Your task to perform on an android device: change the clock display to show seconds Image 0: 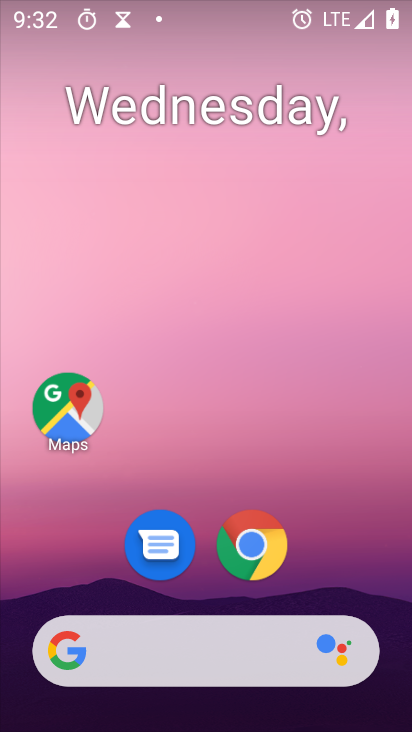
Step 0: press home button
Your task to perform on an android device: change the clock display to show seconds Image 1: 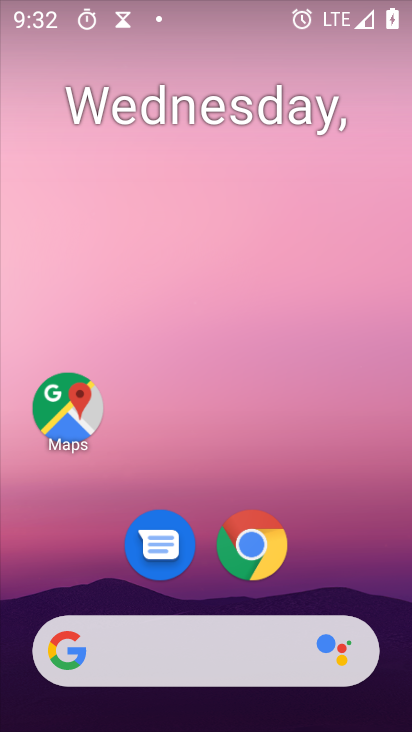
Step 1: drag from (188, 658) to (306, 216)
Your task to perform on an android device: change the clock display to show seconds Image 2: 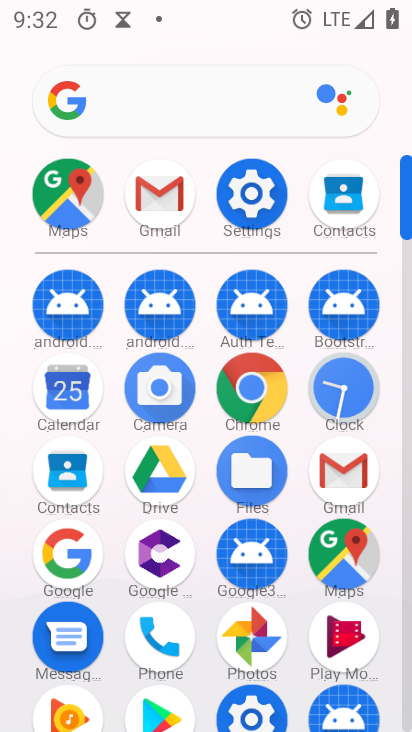
Step 2: click (339, 392)
Your task to perform on an android device: change the clock display to show seconds Image 3: 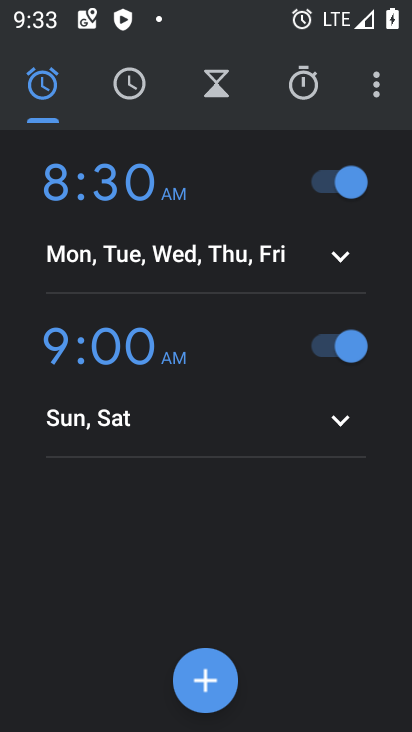
Step 3: click (373, 91)
Your task to perform on an android device: change the clock display to show seconds Image 4: 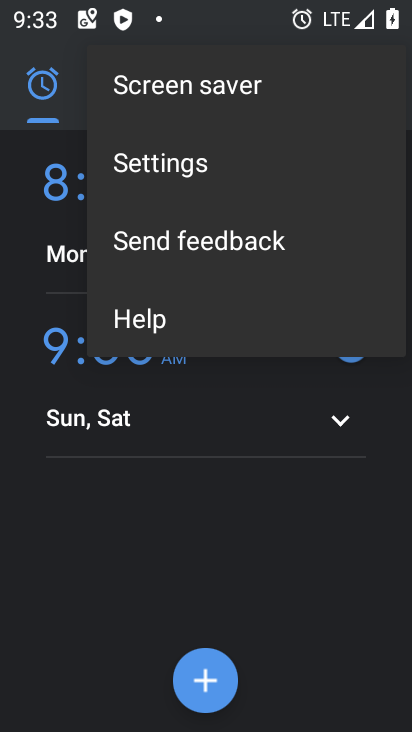
Step 4: click (219, 164)
Your task to perform on an android device: change the clock display to show seconds Image 5: 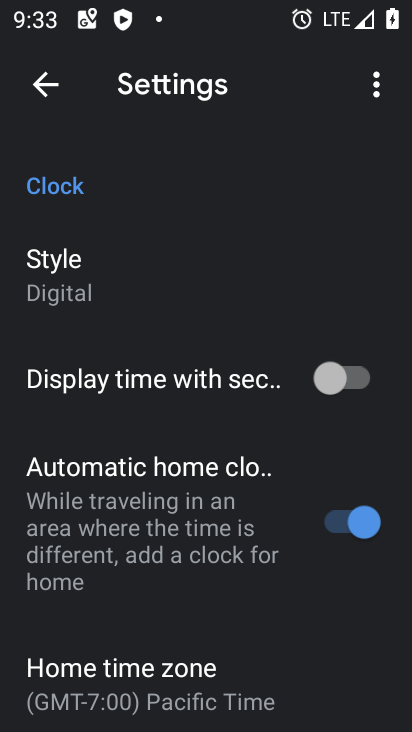
Step 5: click (352, 376)
Your task to perform on an android device: change the clock display to show seconds Image 6: 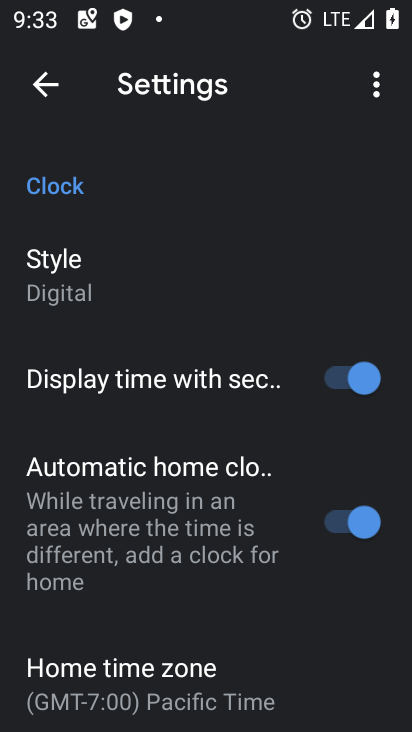
Step 6: task complete